Your task to perform on an android device: Go to Amazon Image 0: 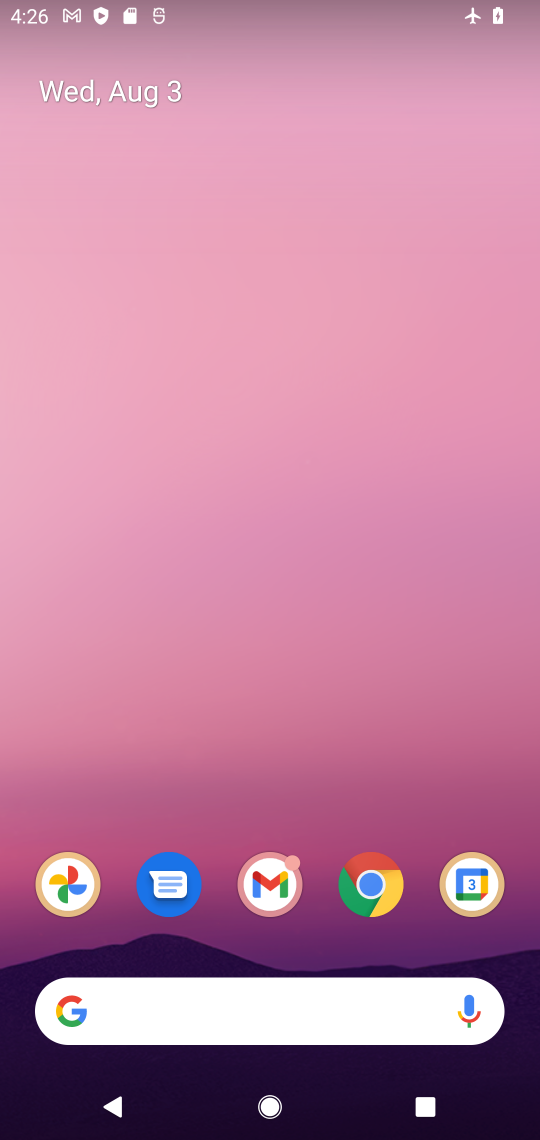
Step 0: drag from (136, 873) to (289, 9)
Your task to perform on an android device: Go to Amazon Image 1: 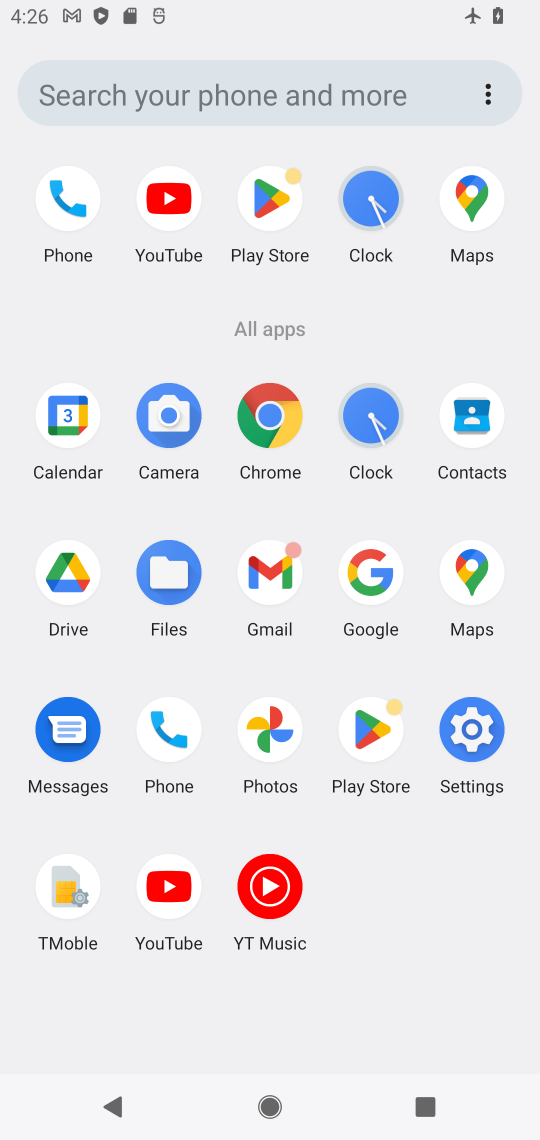
Step 1: click (279, 410)
Your task to perform on an android device: Go to Amazon Image 2: 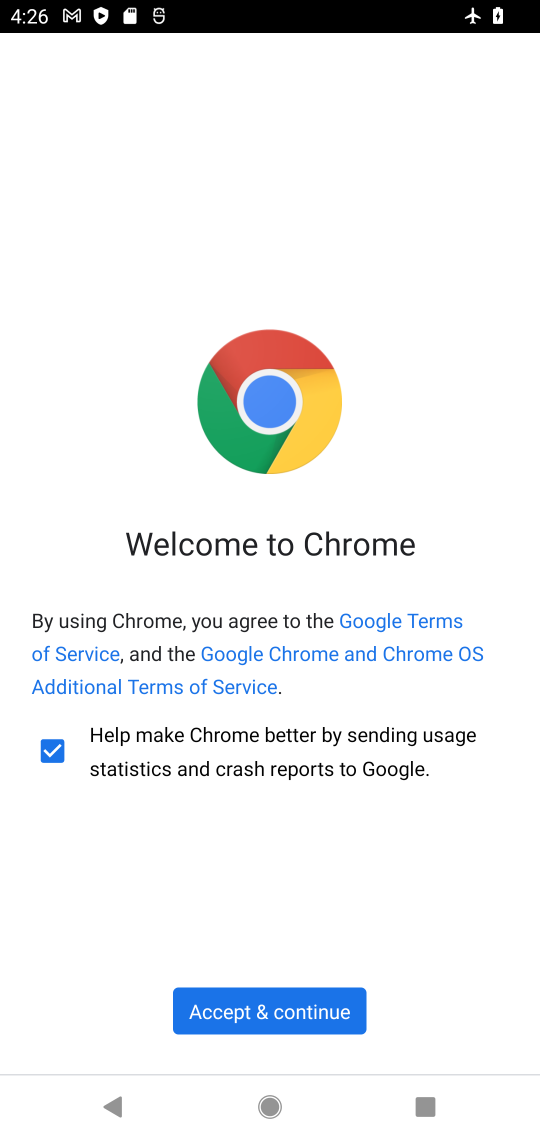
Step 2: click (252, 1015)
Your task to perform on an android device: Go to Amazon Image 3: 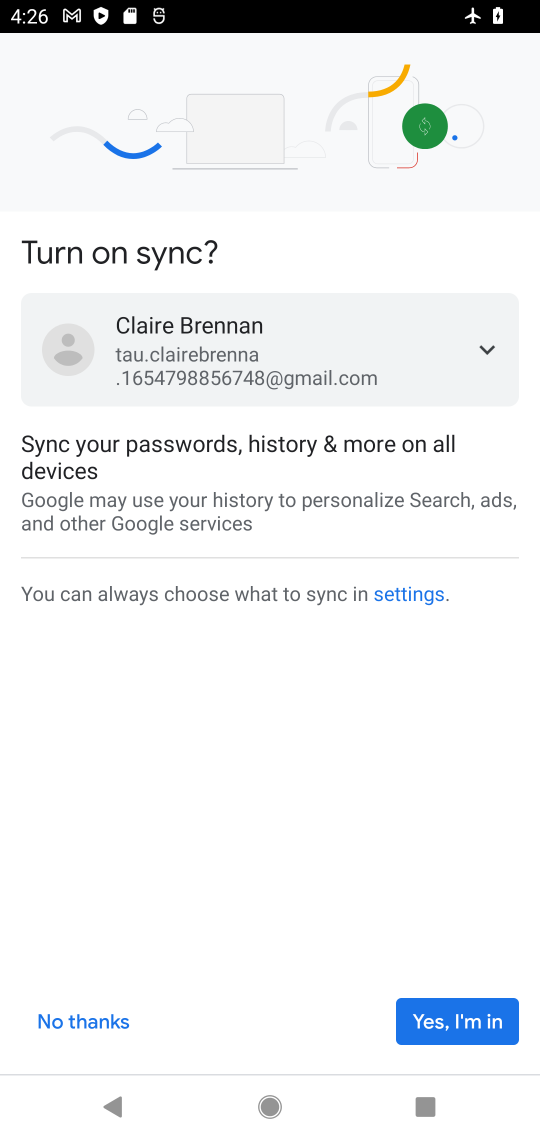
Step 3: click (58, 1009)
Your task to perform on an android device: Go to Amazon Image 4: 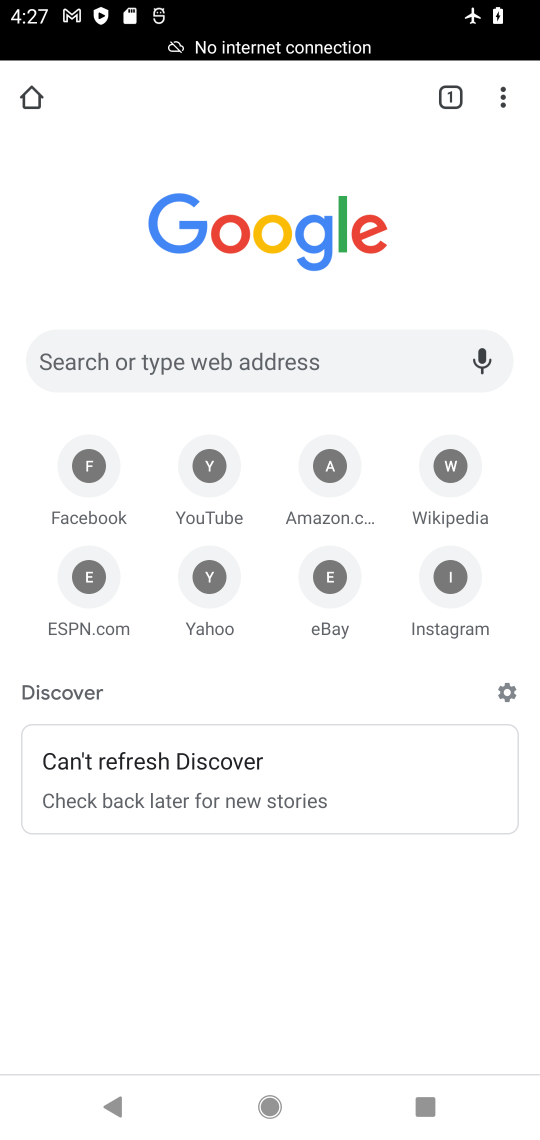
Step 4: click (411, 894)
Your task to perform on an android device: Go to Amazon Image 5: 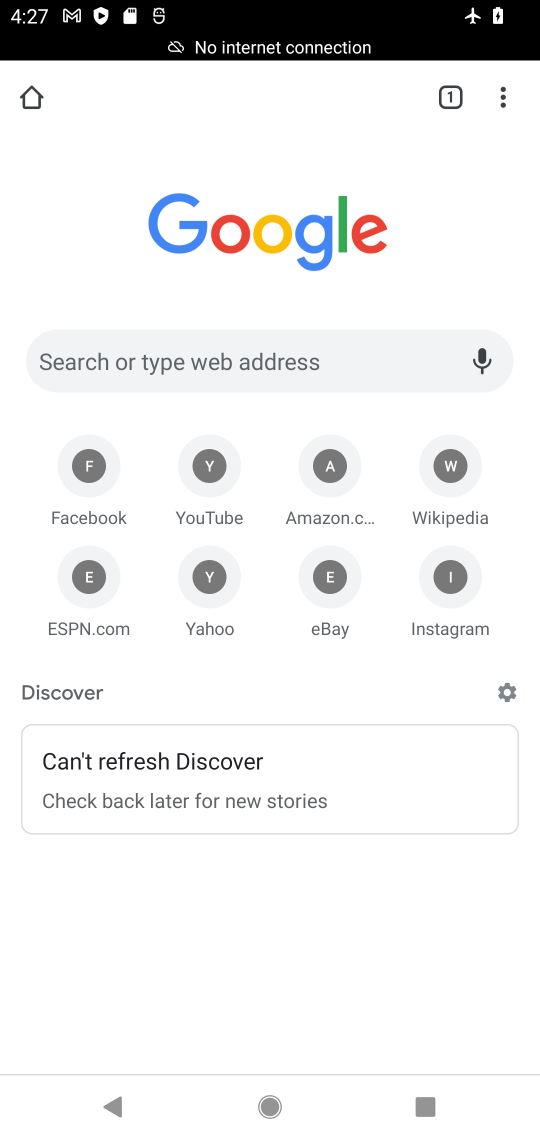
Step 5: click (302, 500)
Your task to perform on an android device: Go to Amazon Image 6: 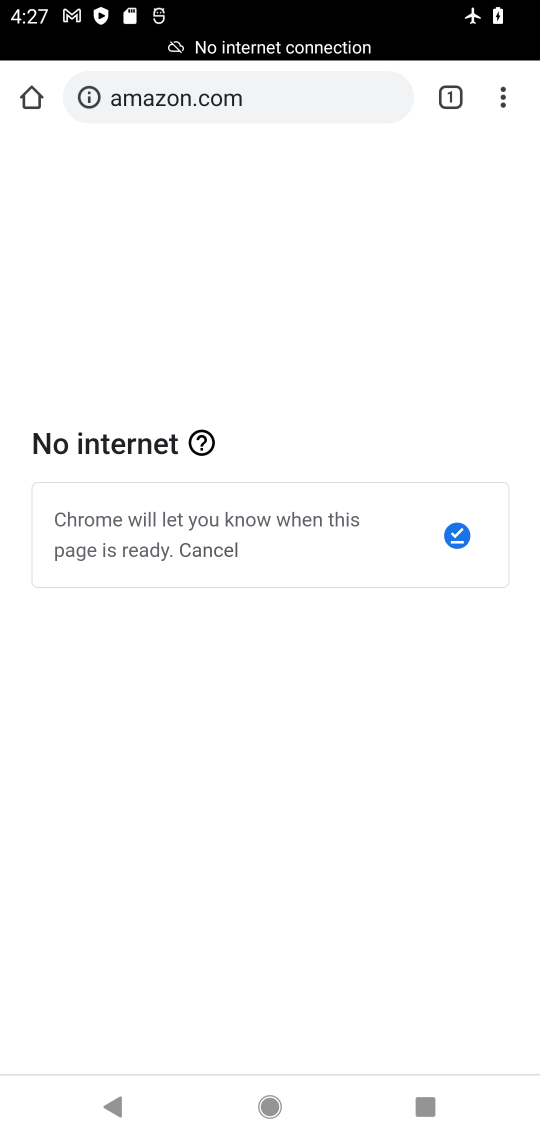
Step 6: task complete